Your task to perform on an android device: Open the map Image 0: 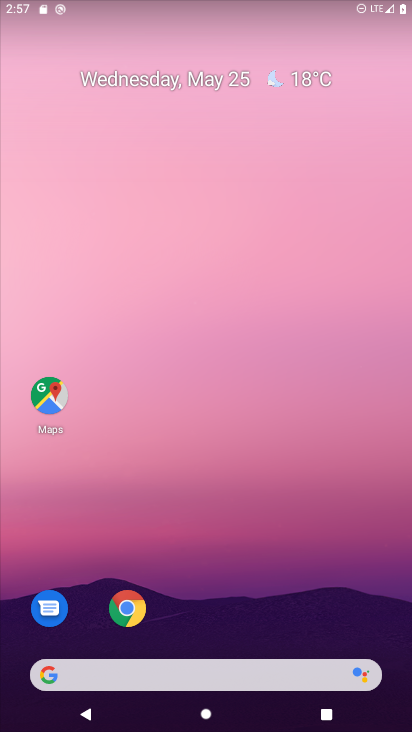
Step 0: click (51, 397)
Your task to perform on an android device: Open the map Image 1: 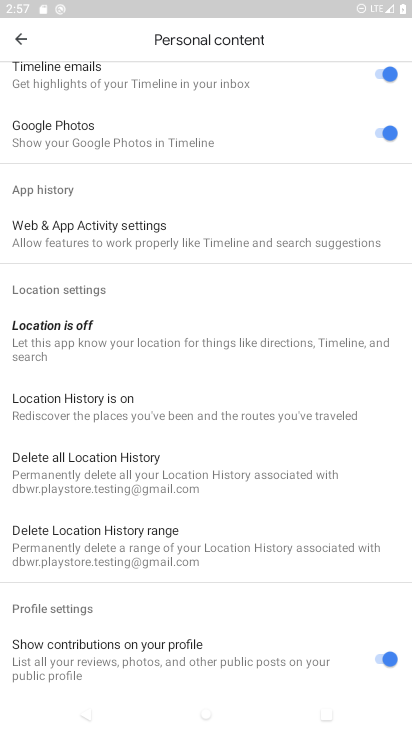
Step 1: press back button
Your task to perform on an android device: Open the map Image 2: 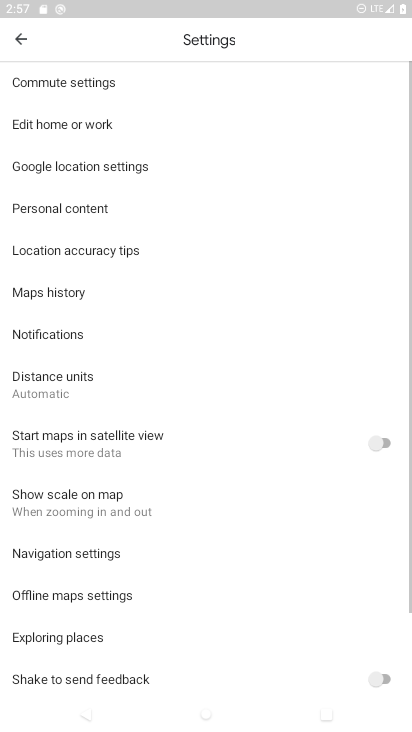
Step 2: press back button
Your task to perform on an android device: Open the map Image 3: 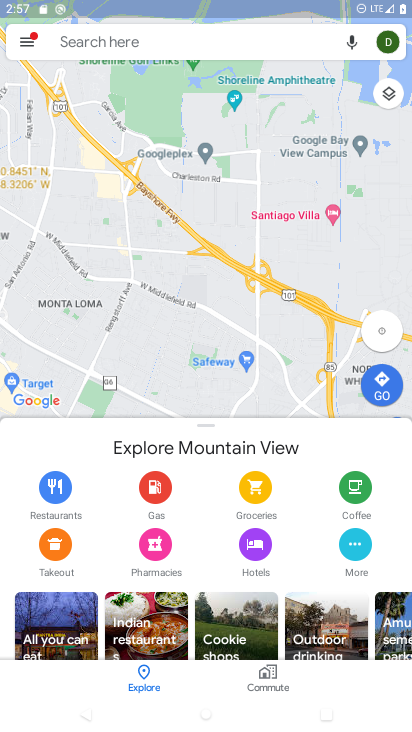
Step 3: click (207, 209)
Your task to perform on an android device: Open the map Image 4: 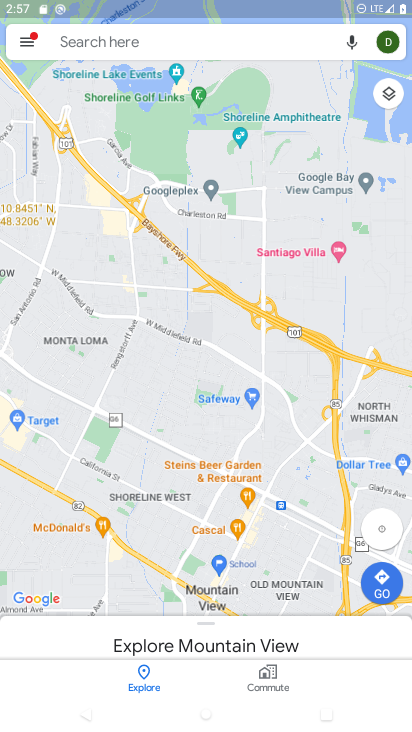
Step 4: task complete